Your task to perform on an android device: Set the phone to "Do not disturb". Image 0: 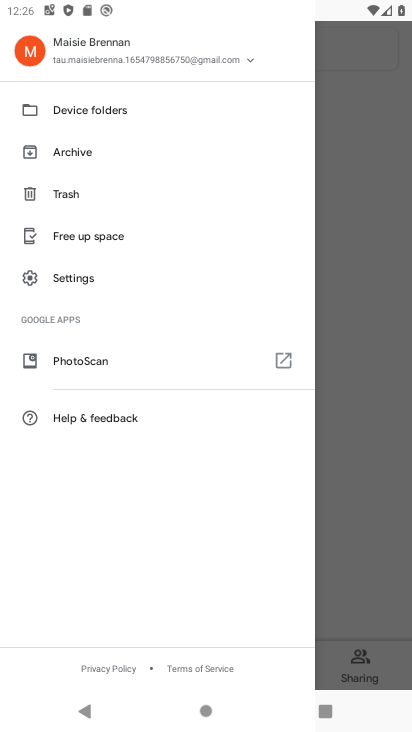
Step 0: press home button
Your task to perform on an android device: Set the phone to "Do not disturb". Image 1: 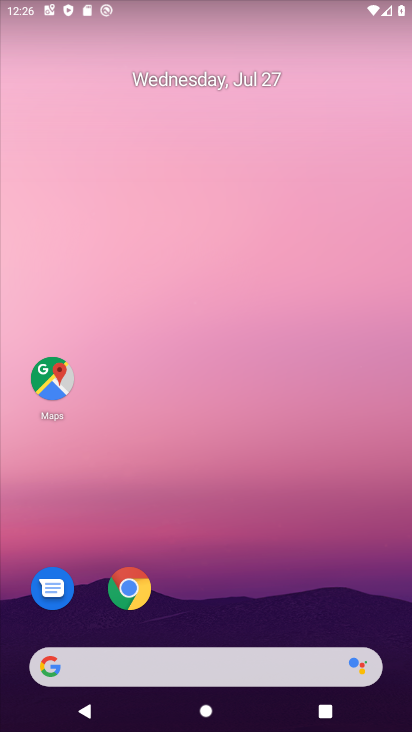
Step 1: drag from (36, 701) to (295, 3)
Your task to perform on an android device: Set the phone to "Do not disturb". Image 2: 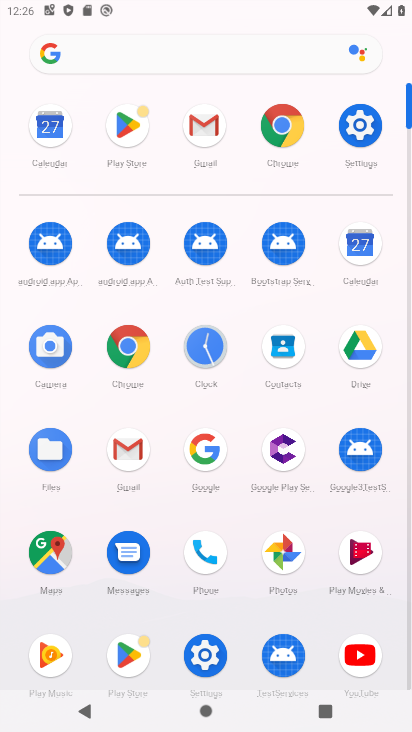
Step 2: click (197, 657)
Your task to perform on an android device: Set the phone to "Do not disturb". Image 3: 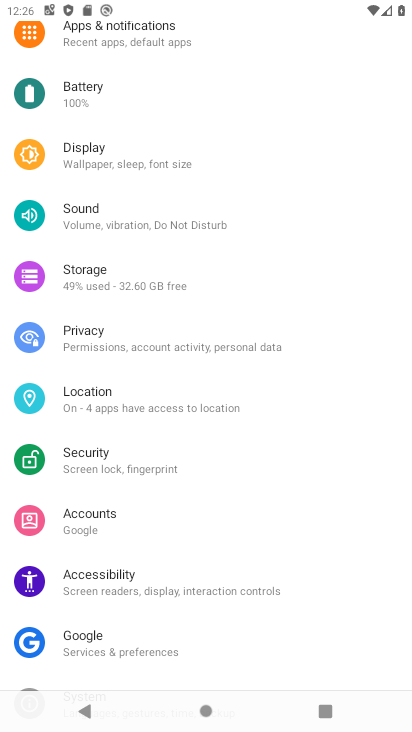
Step 3: click (195, 214)
Your task to perform on an android device: Set the phone to "Do not disturb". Image 4: 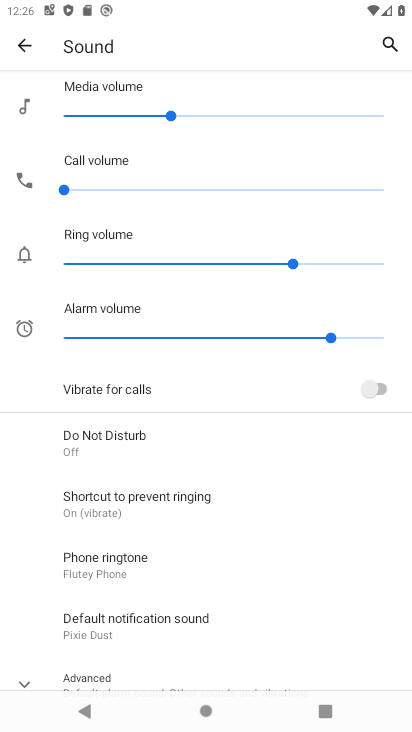
Step 4: click (106, 433)
Your task to perform on an android device: Set the phone to "Do not disturb". Image 5: 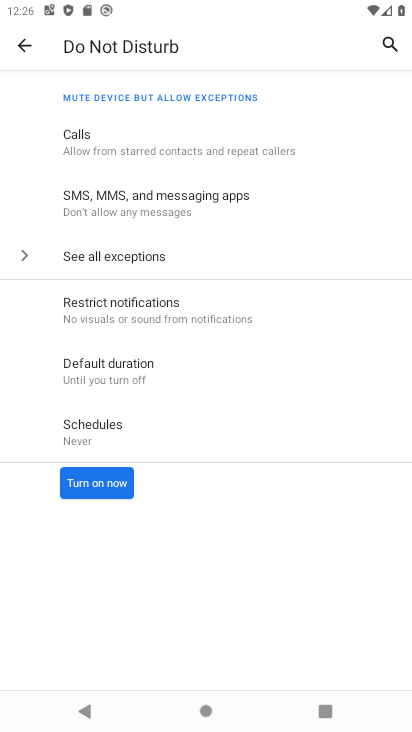
Step 5: click (107, 489)
Your task to perform on an android device: Set the phone to "Do not disturb". Image 6: 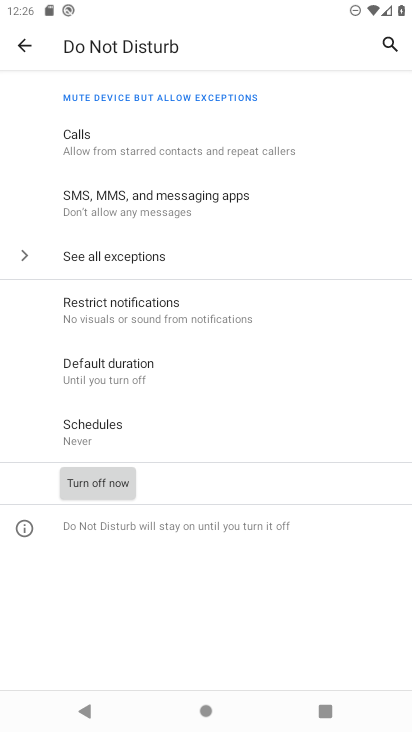
Step 6: task complete